Your task to perform on an android device: all mails in gmail Image 0: 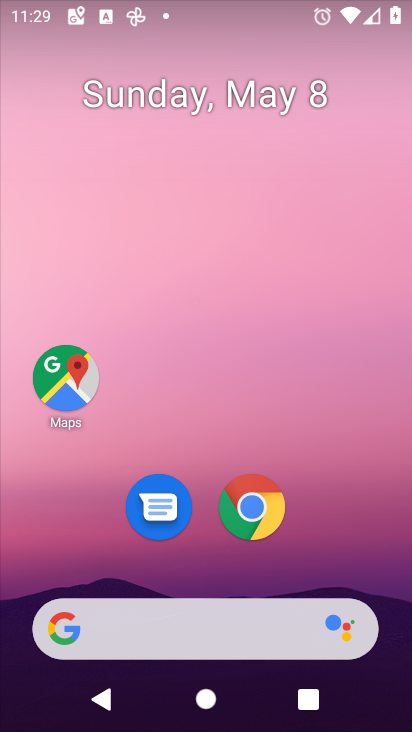
Step 0: drag from (240, 657) to (181, 116)
Your task to perform on an android device: all mails in gmail Image 1: 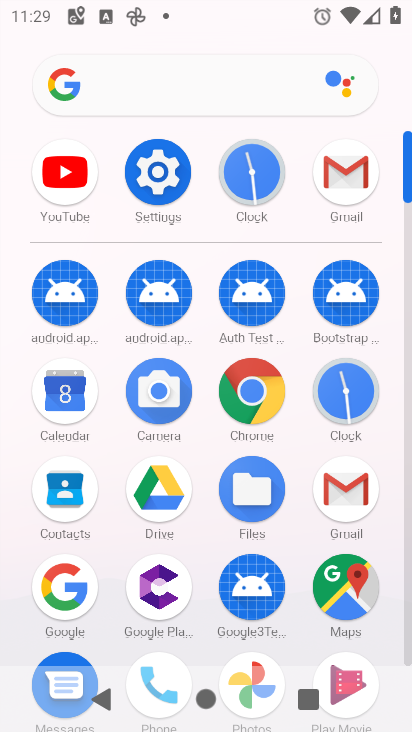
Step 1: click (354, 176)
Your task to perform on an android device: all mails in gmail Image 2: 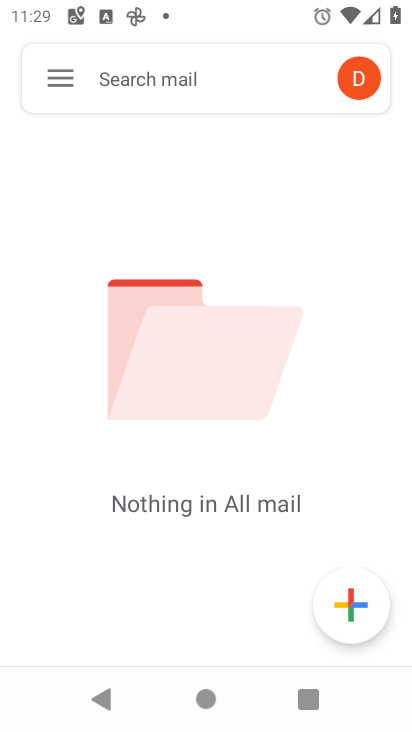
Step 2: click (58, 84)
Your task to perform on an android device: all mails in gmail Image 3: 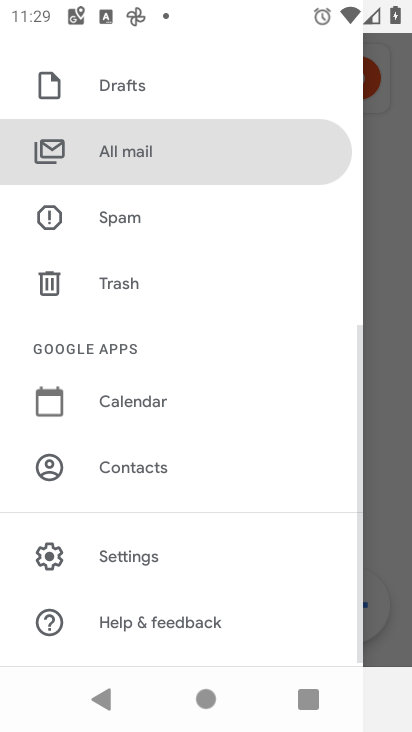
Step 3: click (205, 164)
Your task to perform on an android device: all mails in gmail Image 4: 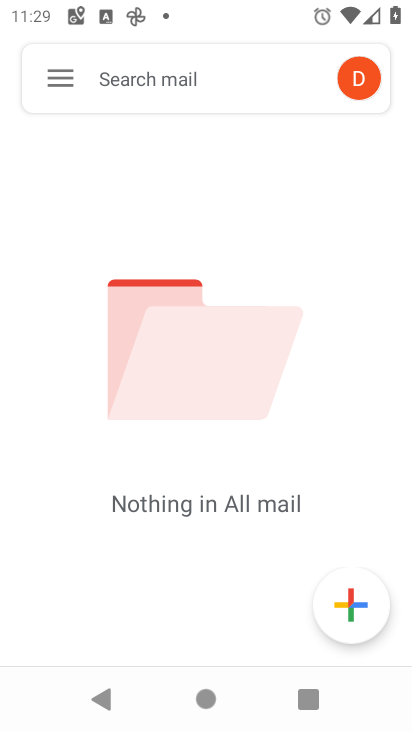
Step 4: task complete